Your task to perform on an android device: show emergency info Image 0: 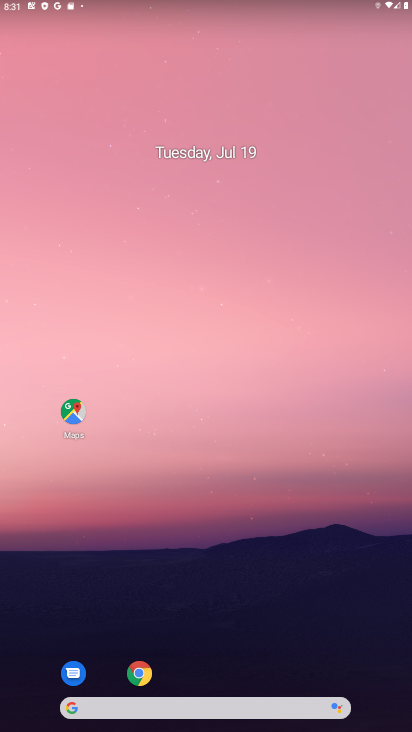
Step 0: drag from (253, 661) to (254, 263)
Your task to perform on an android device: show emergency info Image 1: 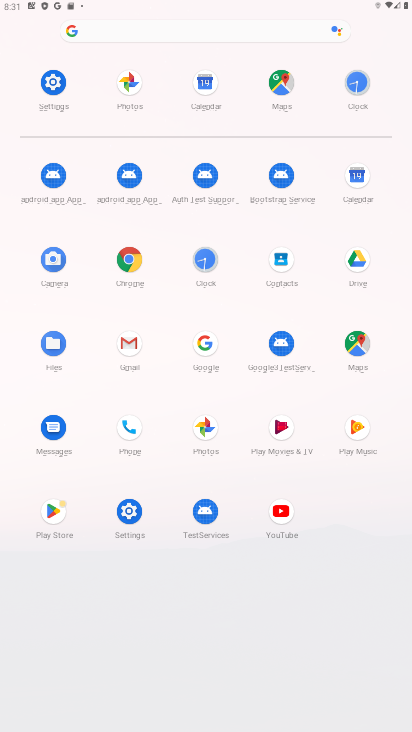
Step 1: click (70, 95)
Your task to perform on an android device: show emergency info Image 2: 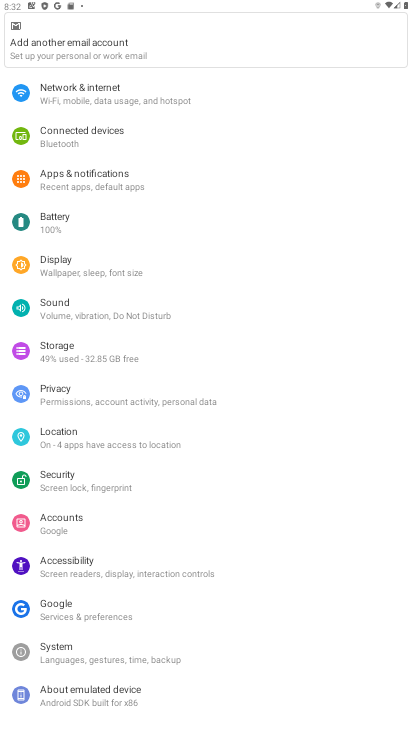
Step 2: click (114, 649)
Your task to perform on an android device: show emergency info Image 3: 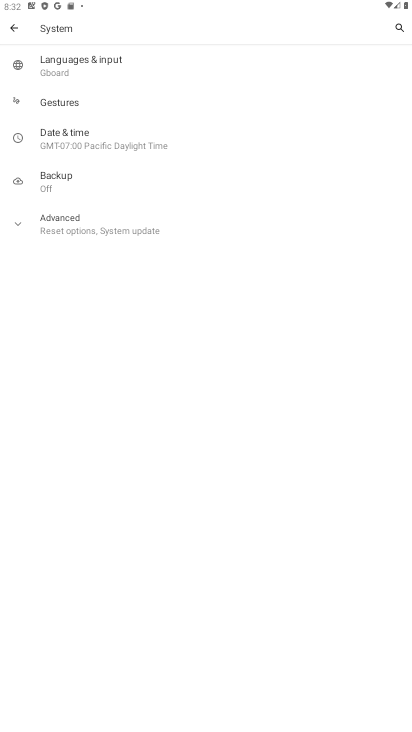
Step 3: click (146, 224)
Your task to perform on an android device: show emergency info Image 4: 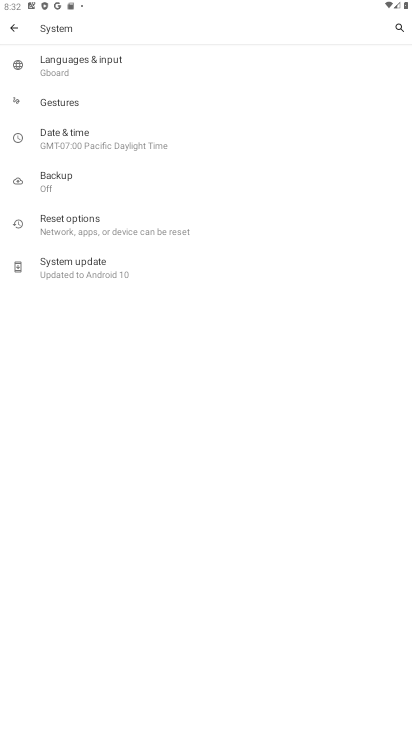
Step 4: click (20, 25)
Your task to perform on an android device: show emergency info Image 5: 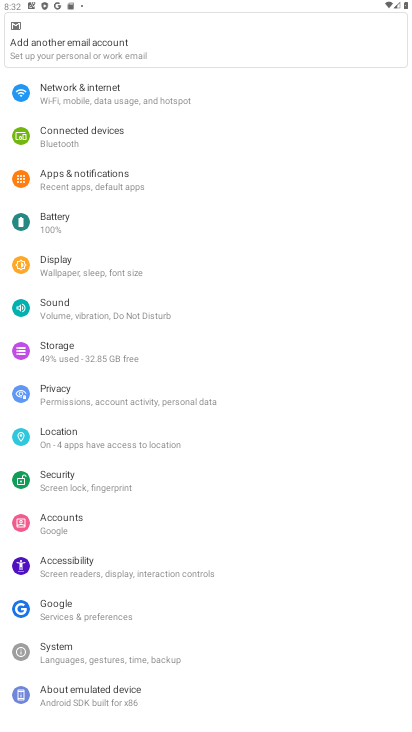
Step 5: click (98, 685)
Your task to perform on an android device: show emergency info Image 6: 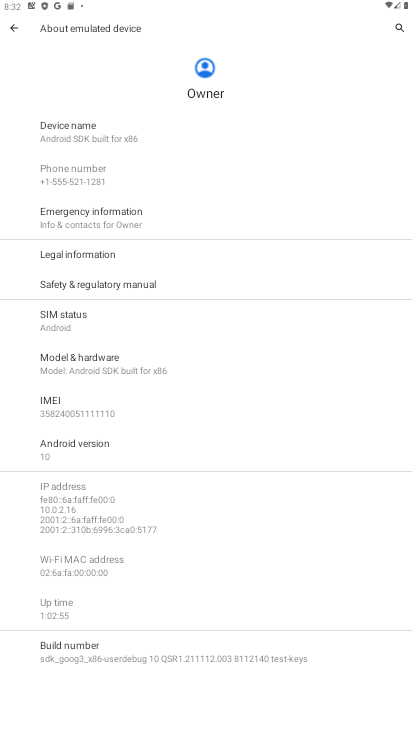
Step 6: click (148, 206)
Your task to perform on an android device: show emergency info Image 7: 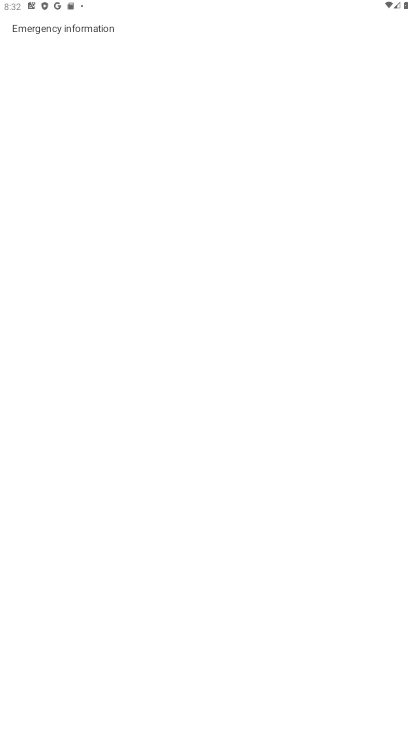
Step 7: task complete